Your task to perform on an android device: turn off smart reply in the gmail app Image 0: 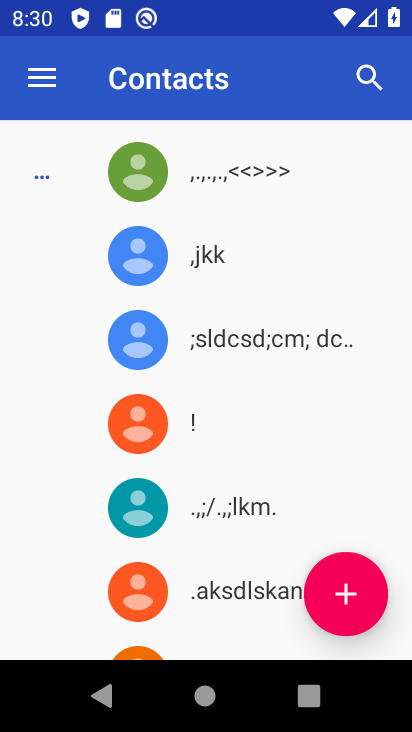
Step 0: press home button
Your task to perform on an android device: turn off smart reply in the gmail app Image 1: 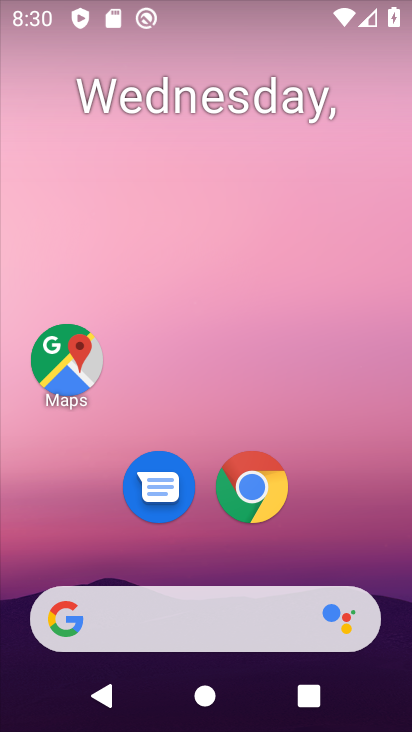
Step 1: drag from (106, 488) to (333, 4)
Your task to perform on an android device: turn off smart reply in the gmail app Image 2: 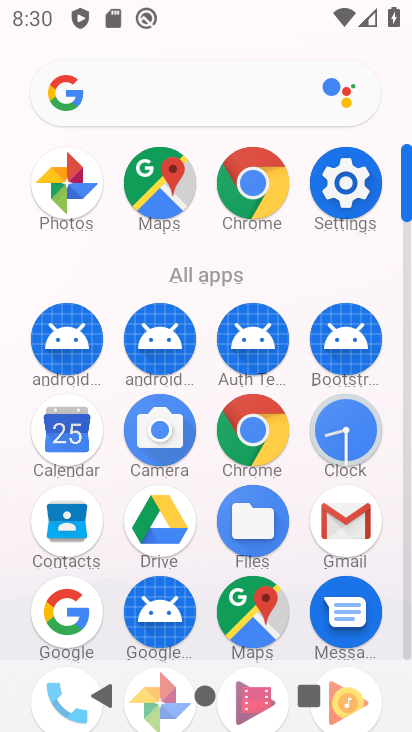
Step 2: click (354, 519)
Your task to perform on an android device: turn off smart reply in the gmail app Image 3: 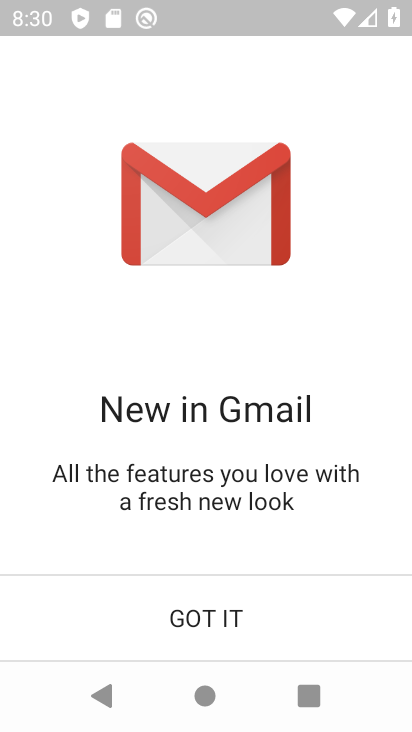
Step 3: click (256, 629)
Your task to perform on an android device: turn off smart reply in the gmail app Image 4: 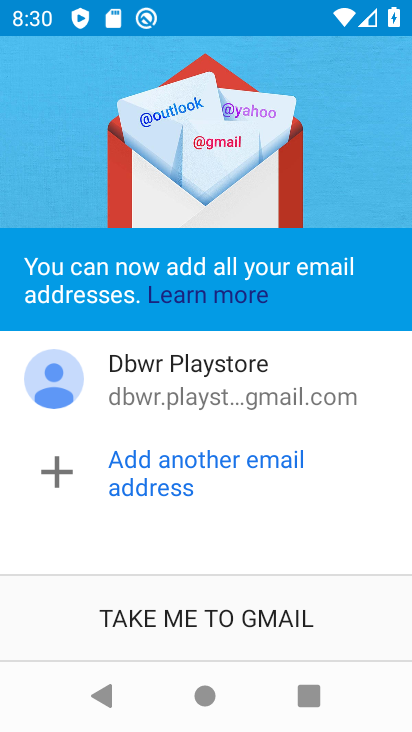
Step 4: click (256, 627)
Your task to perform on an android device: turn off smart reply in the gmail app Image 5: 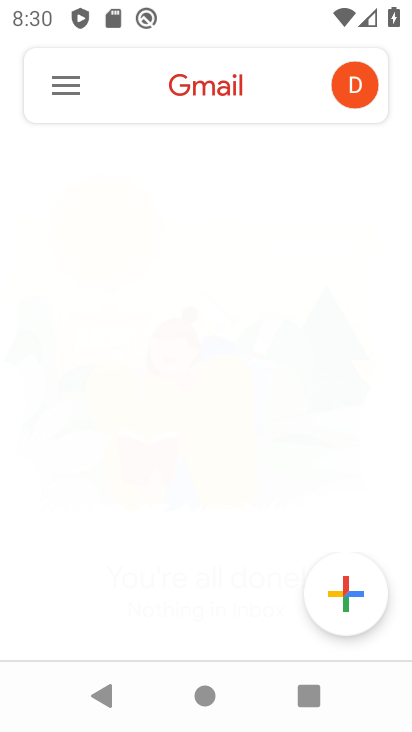
Step 5: click (63, 83)
Your task to perform on an android device: turn off smart reply in the gmail app Image 6: 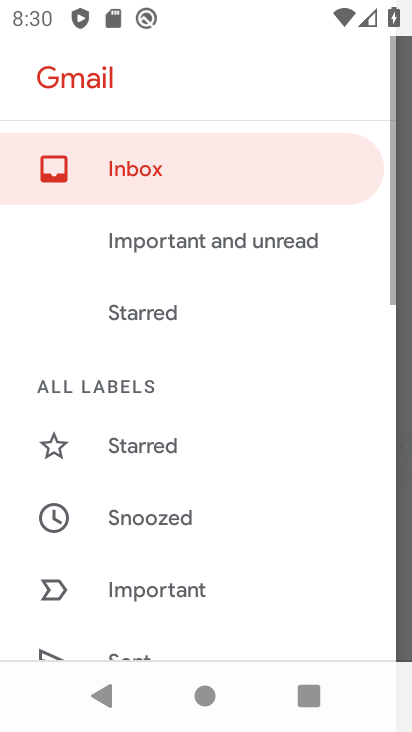
Step 6: drag from (119, 569) to (236, 143)
Your task to perform on an android device: turn off smart reply in the gmail app Image 7: 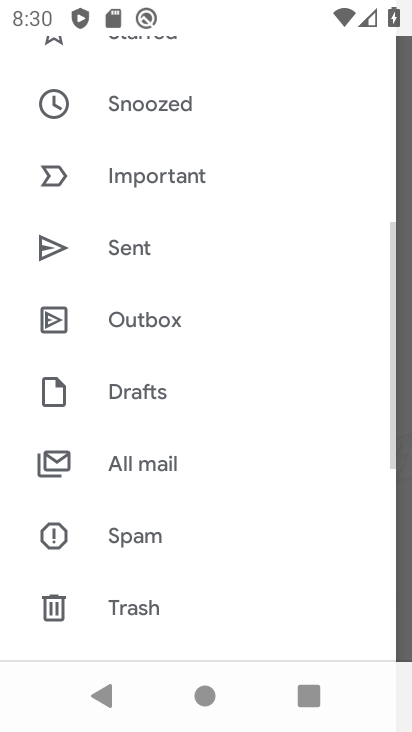
Step 7: drag from (126, 564) to (232, 154)
Your task to perform on an android device: turn off smart reply in the gmail app Image 8: 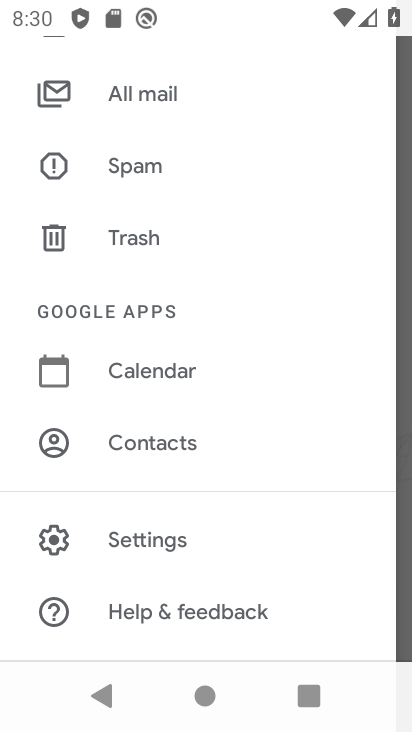
Step 8: click (186, 550)
Your task to perform on an android device: turn off smart reply in the gmail app Image 9: 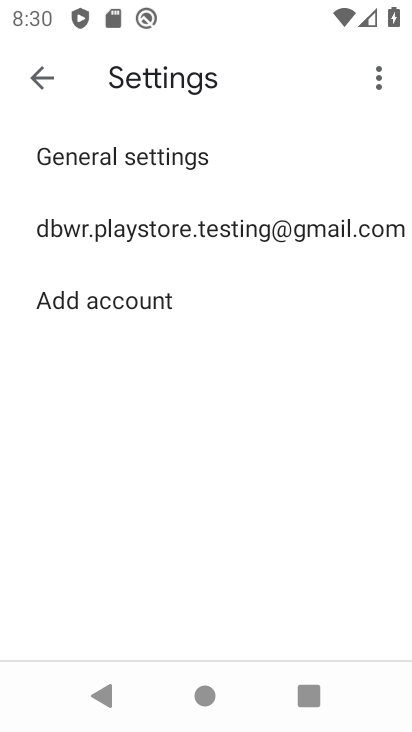
Step 9: click (288, 228)
Your task to perform on an android device: turn off smart reply in the gmail app Image 10: 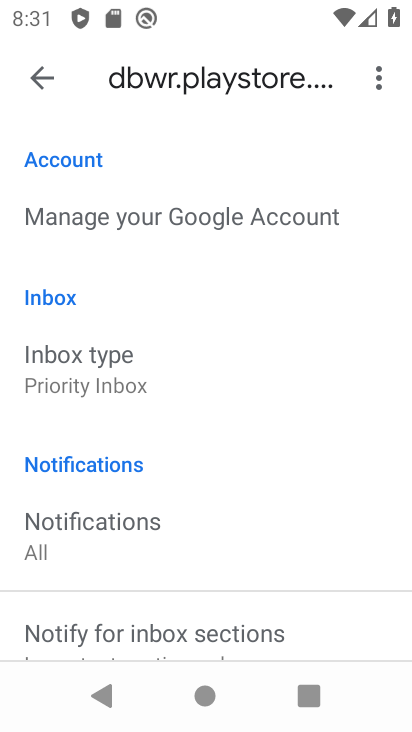
Step 10: drag from (95, 558) to (296, 11)
Your task to perform on an android device: turn off smart reply in the gmail app Image 11: 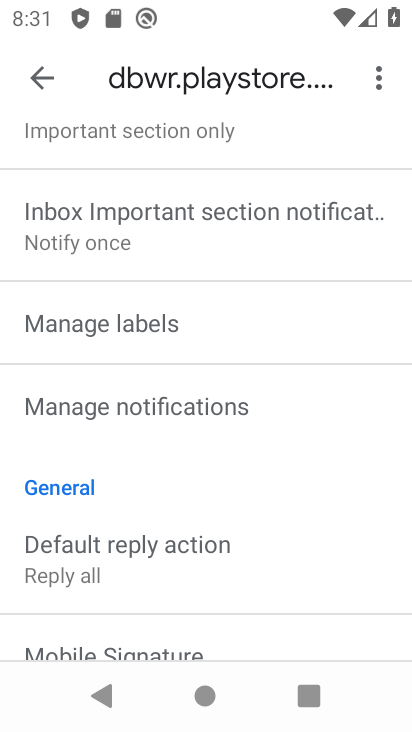
Step 11: drag from (185, 654) to (318, 117)
Your task to perform on an android device: turn off smart reply in the gmail app Image 12: 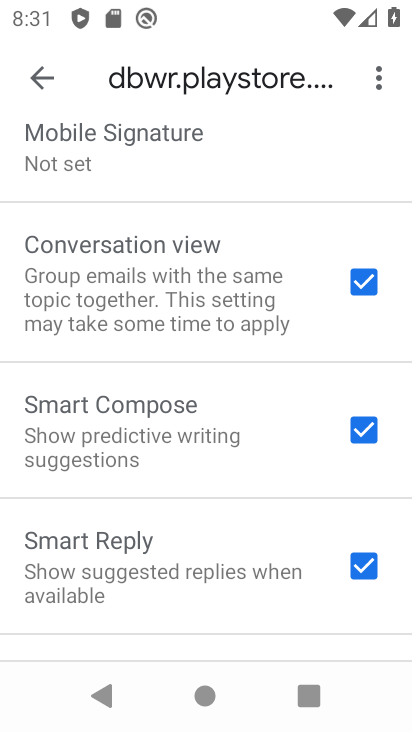
Step 12: click (363, 555)
Your task to perform on an android device: turn off smart reply in the gmail app Image 13: 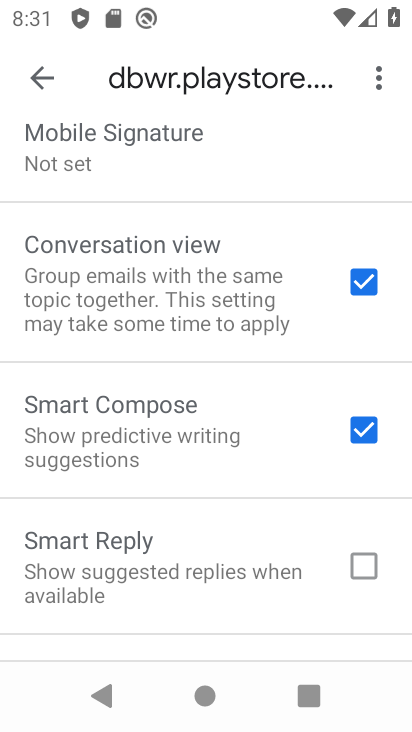
Step 13: task complete